Your task to perform on an android device: Search for vegetarian restaurants on Maps Image 0: 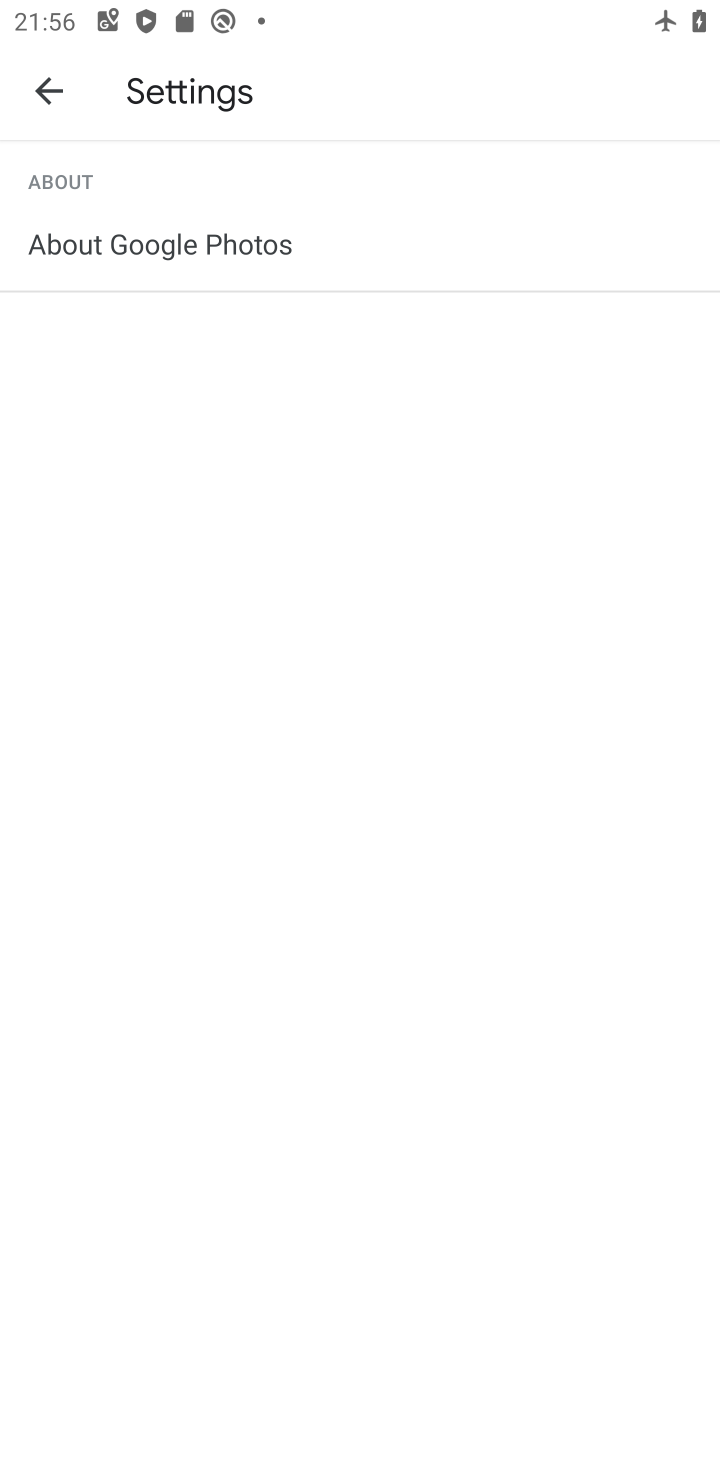
Step 0: press home button
Your task to perform on an android device: Search for vegetarian restaurants on Maps Image 1: 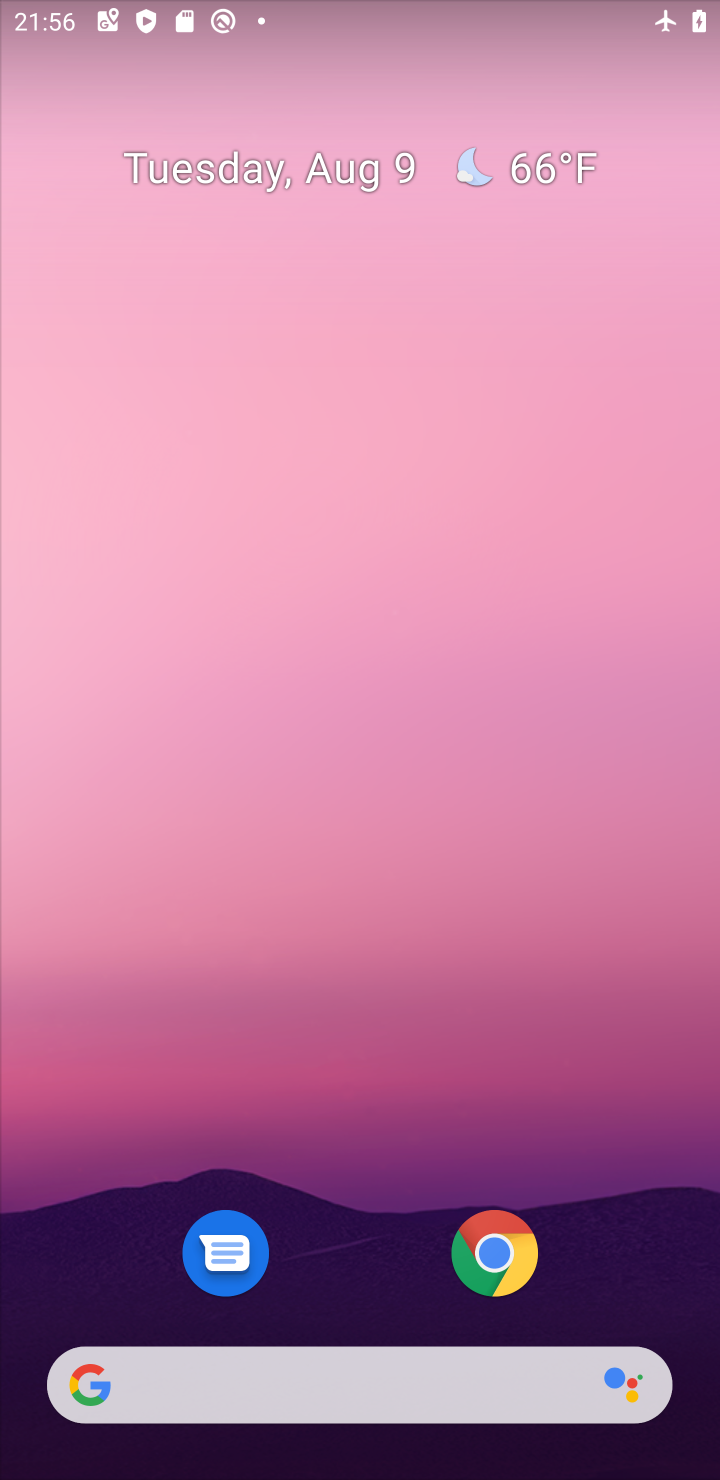
Step 1: drag from (406, 1020) to (621, 177)
Your task to perform on an android device: Search for vegetarian restaurants on Maps Image 2: 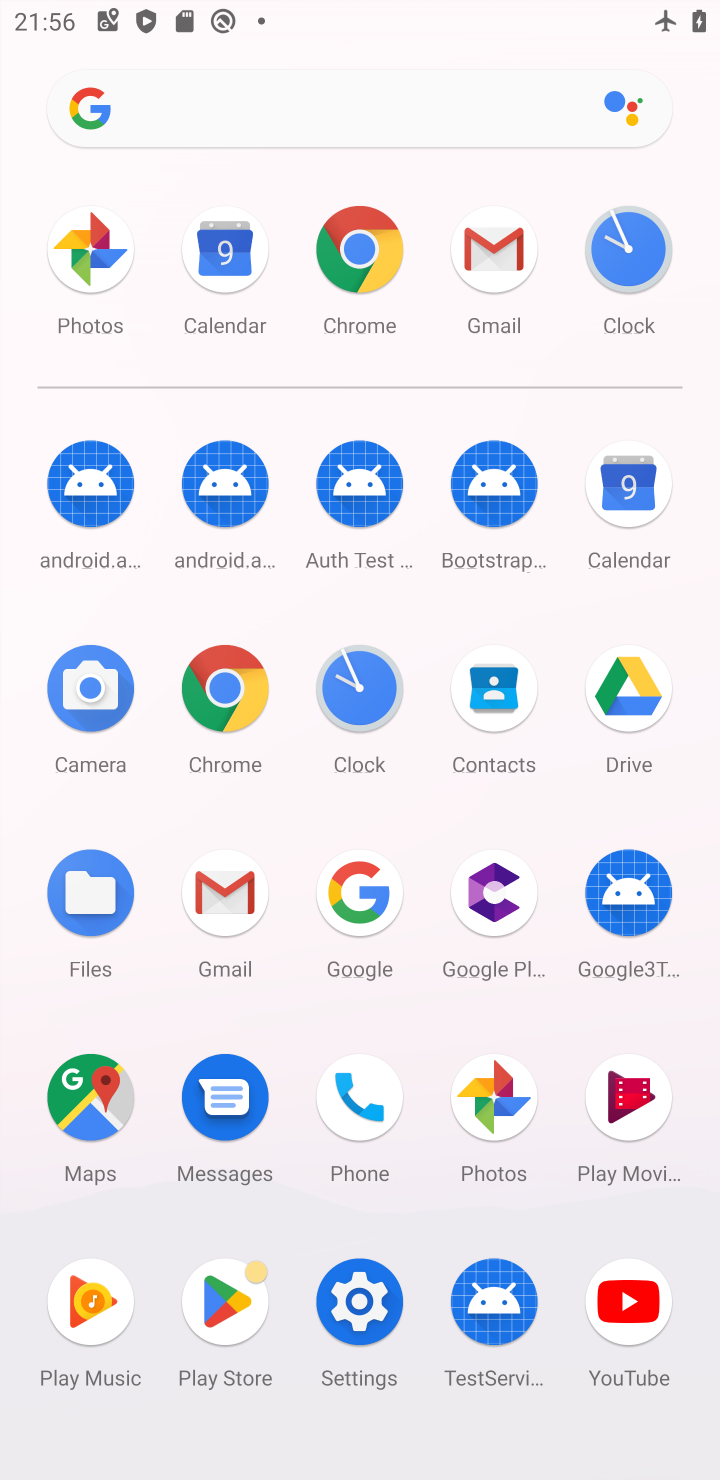
Step 2: click (94, 1085)
Your task to perform on an android device: Search for vegetarian restaurants on Maps Image 3: 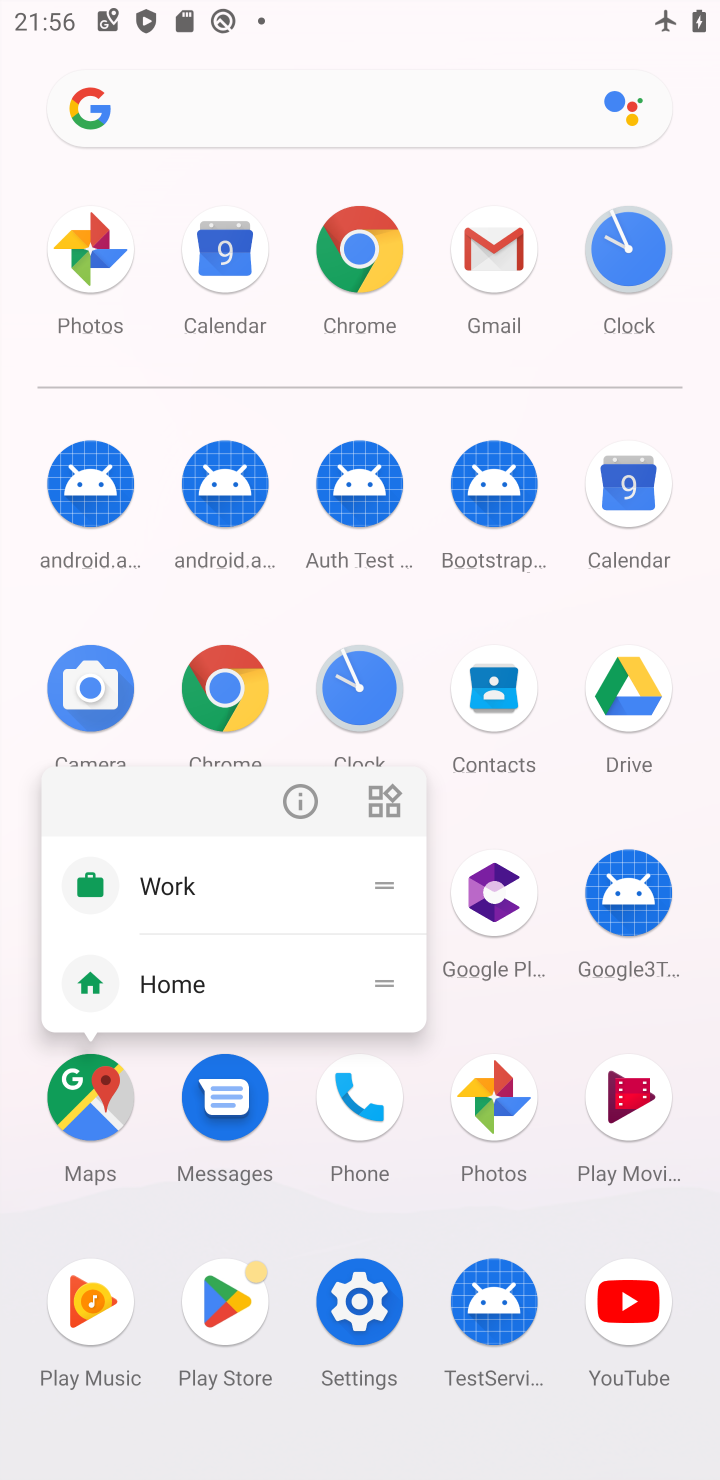
Step 3: click (74, 1100)
Your task to perform on an android device: Search for vegetarian restaurants on Maps Image 4: 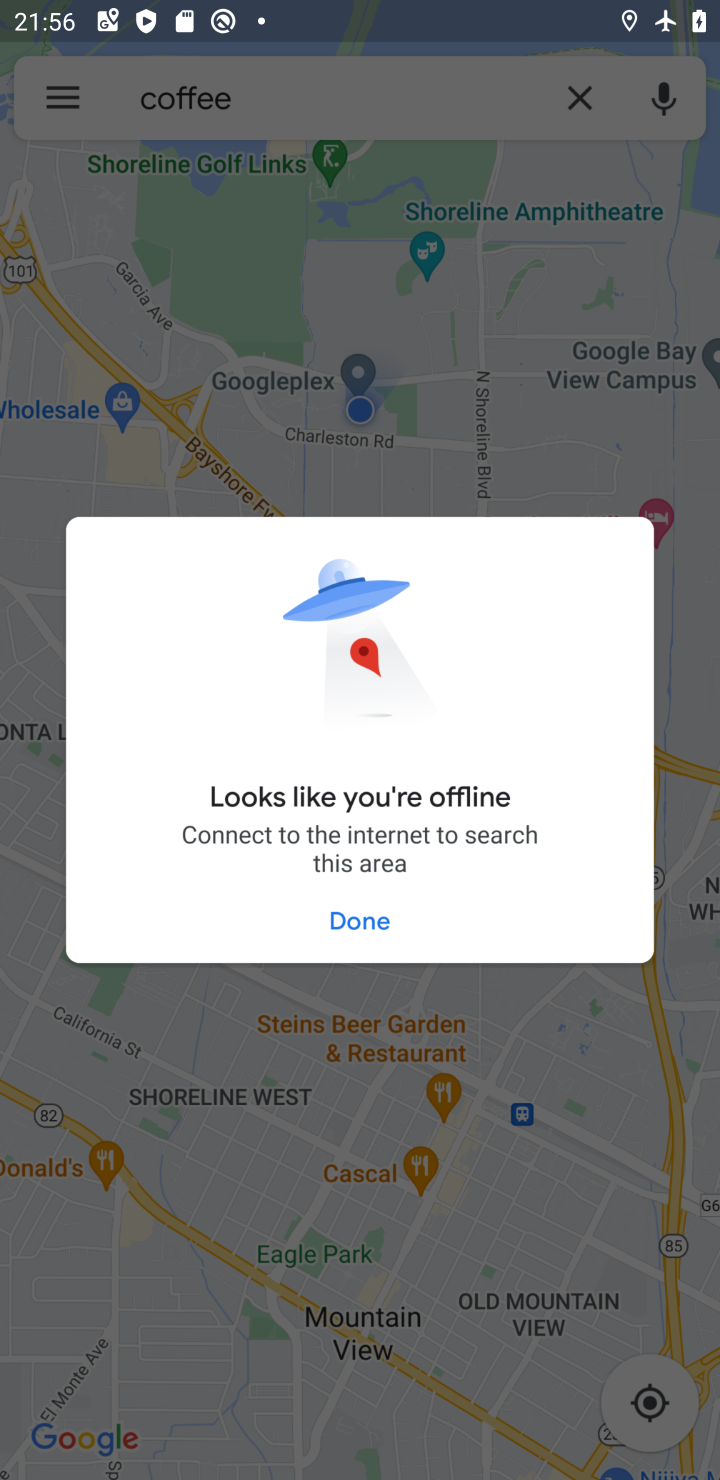
Step 4: click (331, 927)
Your task to perform on an android device: Search for vegetarian restaurants on Maps Image 5: 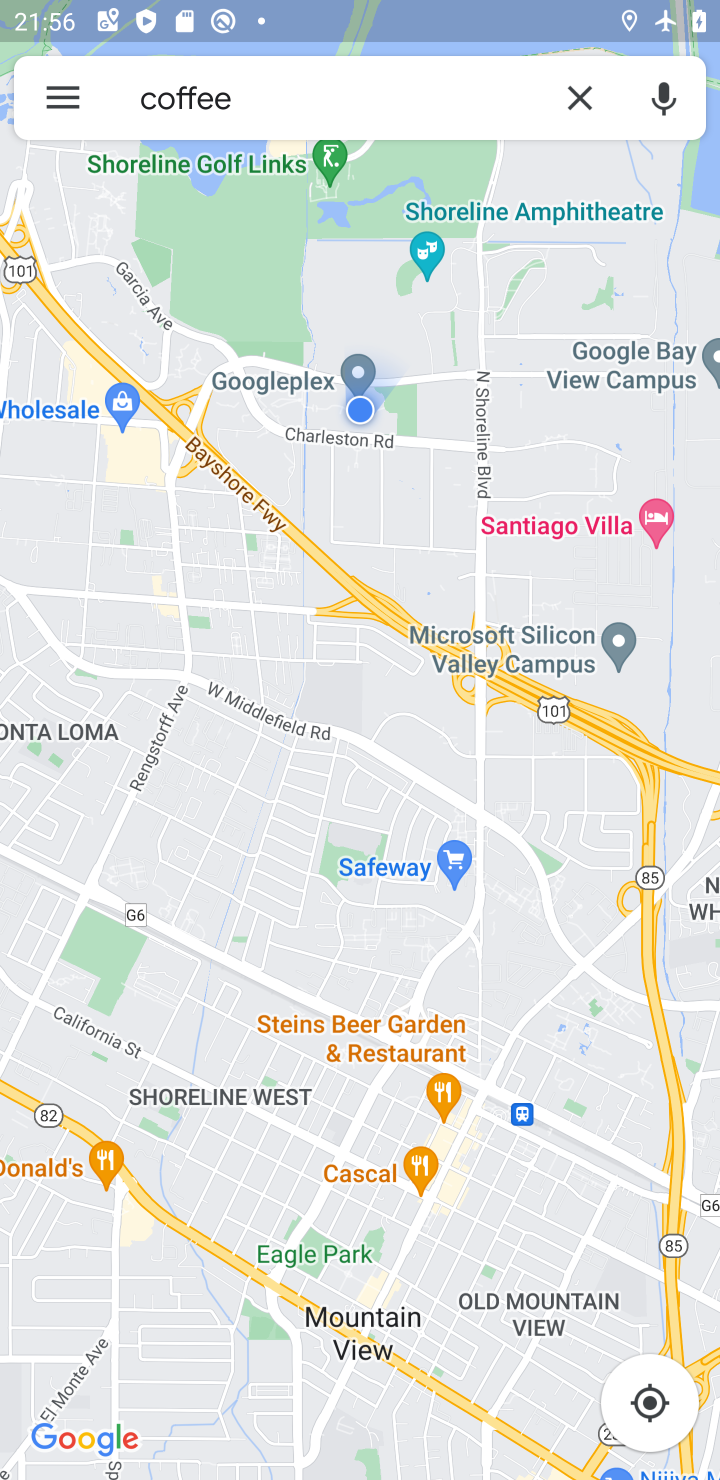
Step 5: click (413, 81)
Your task to perform on an android device: Search for vegetarian restaurants on Maps Image 6: 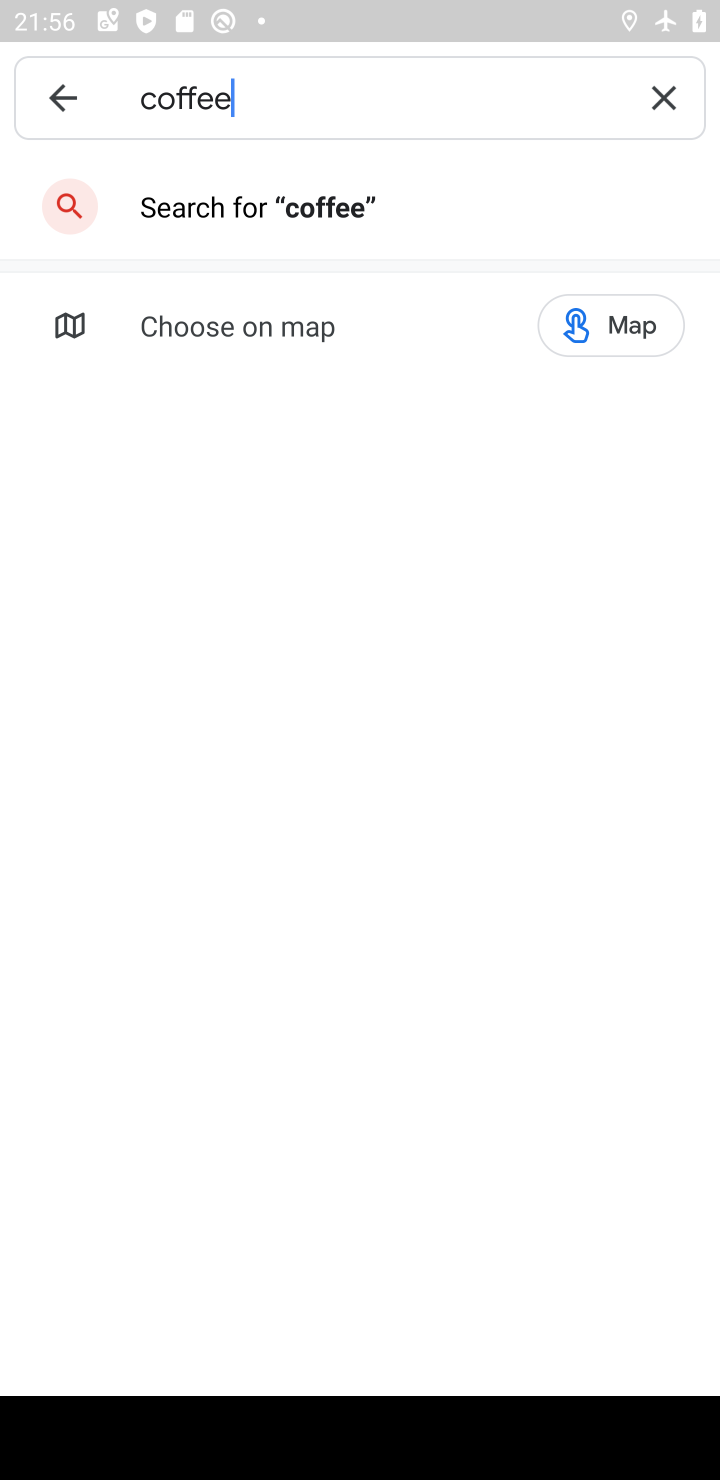
Step 6: click (661, 110)
Your task to perform on an android device: Search for vegetarian restaurants on Maps Image 7: 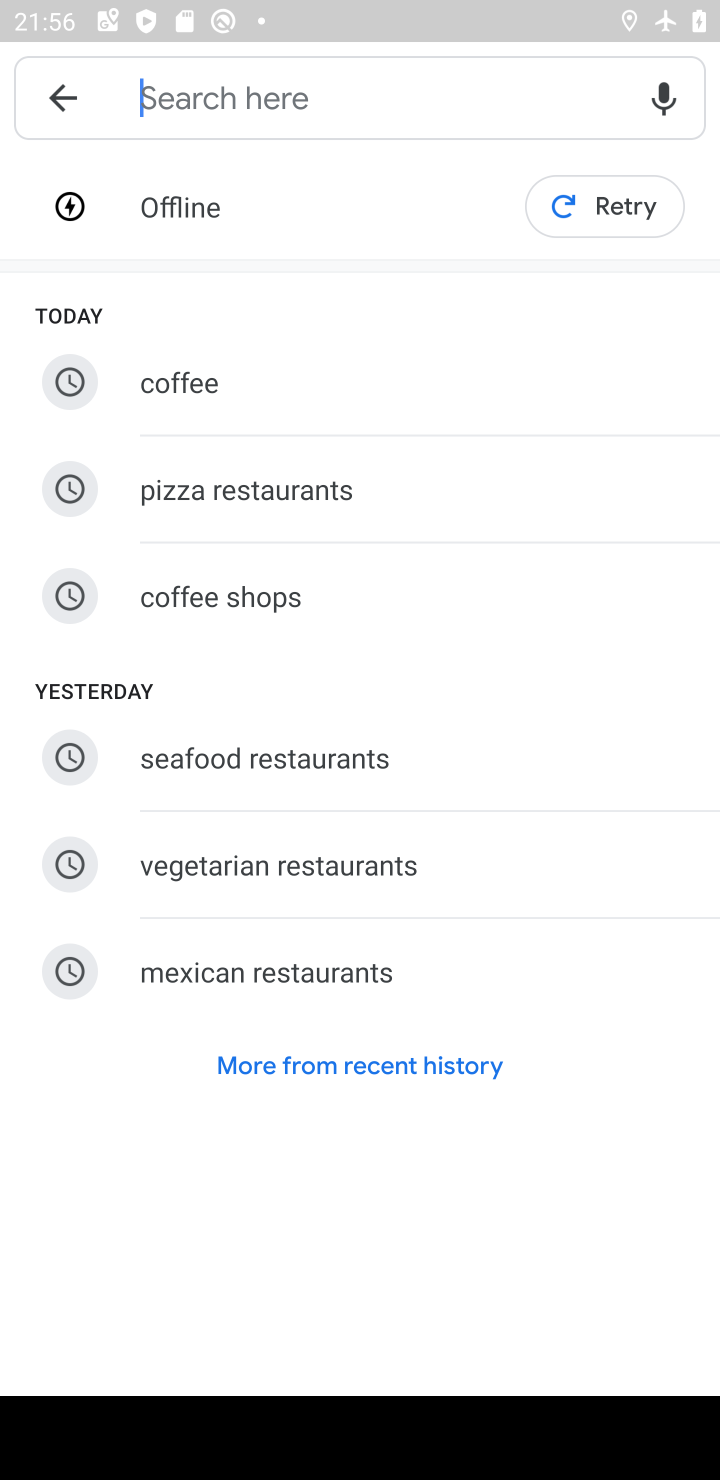
Step 7: click (301, 864)
Your task to perform on an android device: Search for vegetarian restaurants on Maps Image 8: 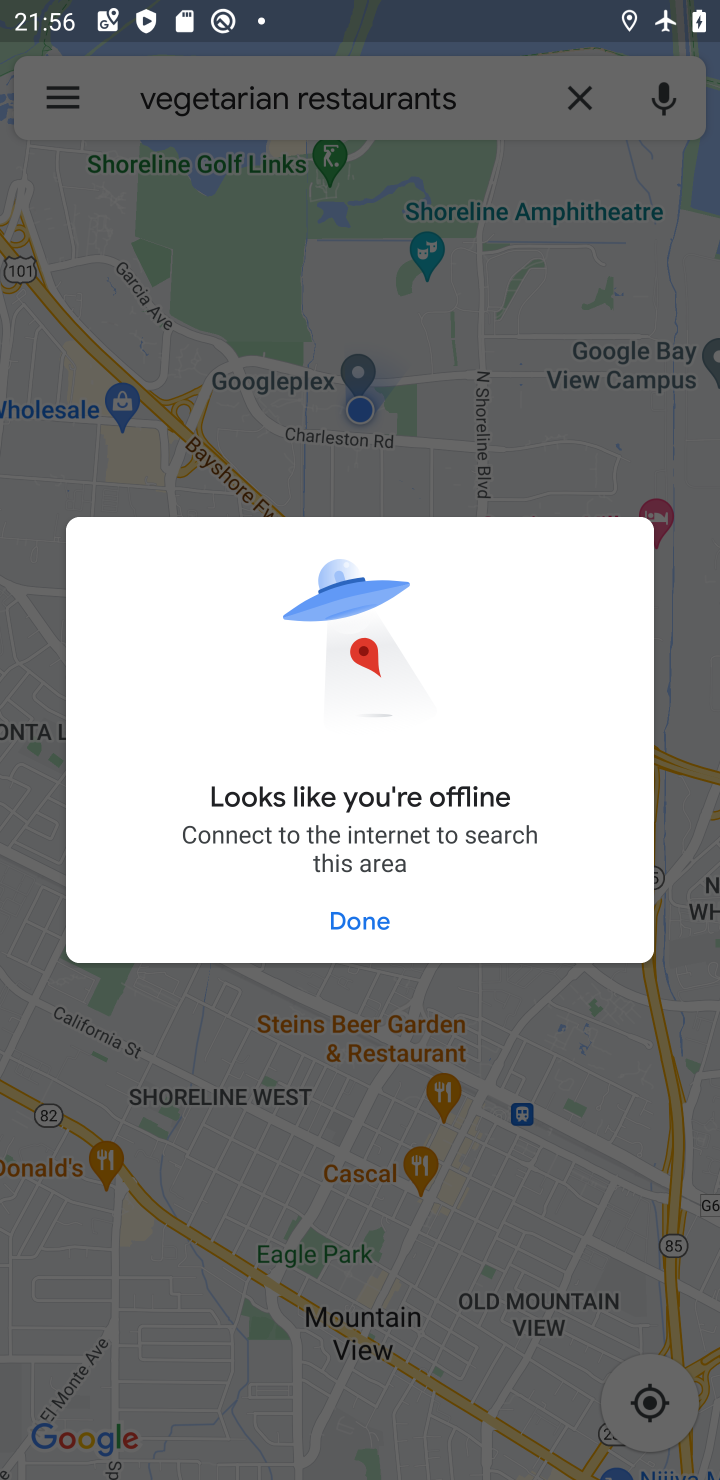
Step 8: task complete